Your task to perform on an android device: Search for Italian restaurants on Maps Image 0: 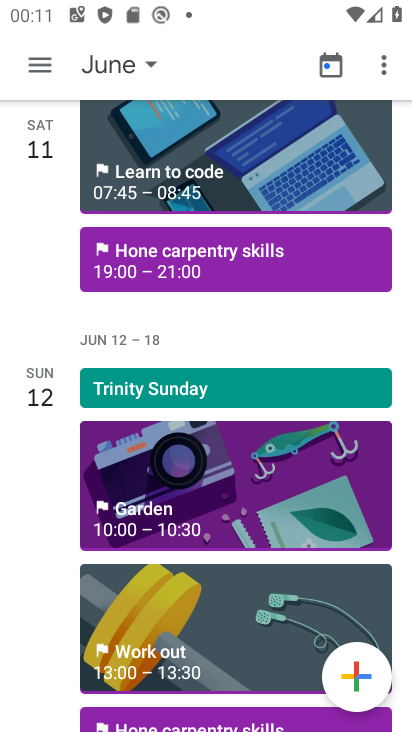
Step 0: press home button
Your task to perform on an android device: Search for Italian restaurants on Maps Image 1: 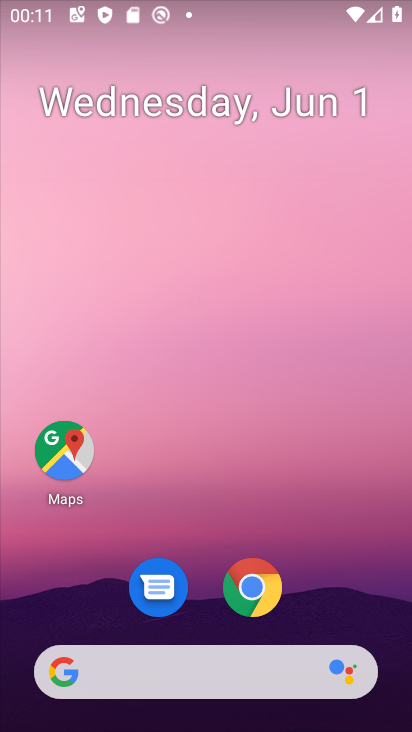
Step 1: click (47, 456)
Your task to perform on an android device: Search for Italian restaurants on Maps Image 2: 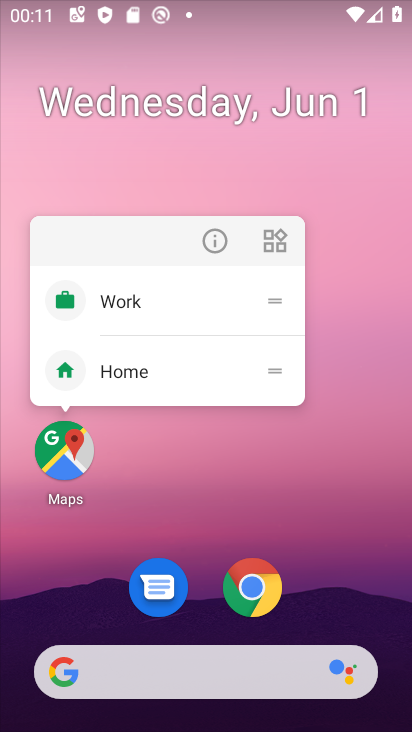
Step 2: click (49, 455)
Your task to perform on an android device: Search for Italian restaurants on Maps Image 3: 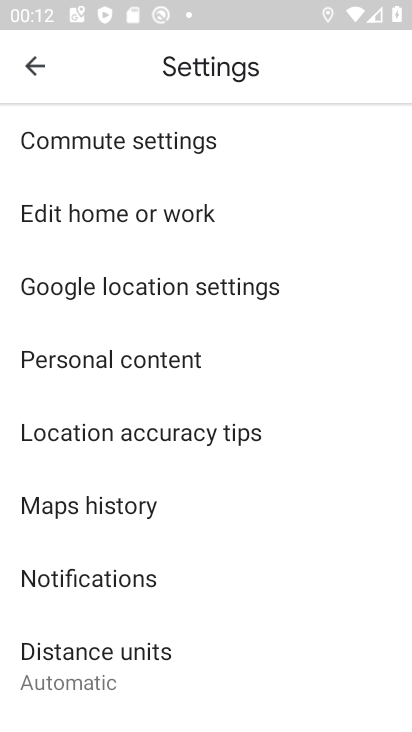
Step 3: press back button
Your task to perform on an android device: Search for Italian restaurants on Maps Image 4: 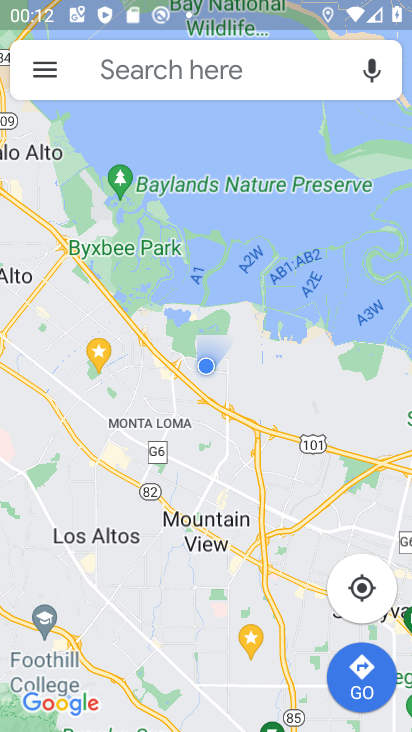
Step 4: click (107, 74)
Your task to perform on an android device: Search for Italian restaurants on Maps Image 5: 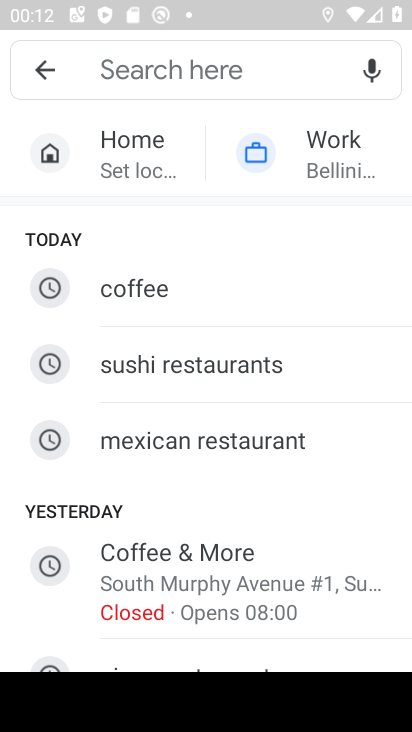
Step 5: type "italian restaurants"
Your task to perform on an android device: Search for Italian restaurants on Maps Image 6: 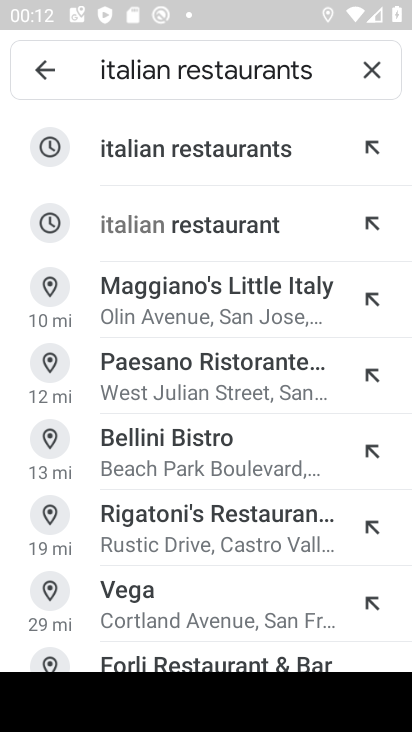
Step 6: click (170, 161)
Your task to perform on an android device: Search for Italian restaurants on Maps Image 7: 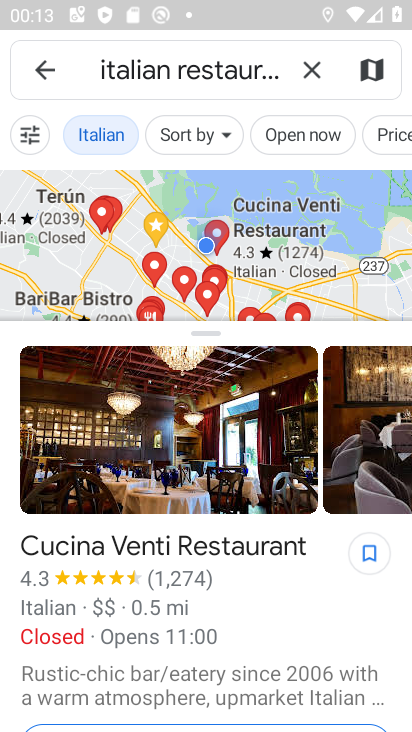
Step 7: task complete